Your task to perform on an android device: open app "Spotify" (install if not already installed) Image 0: 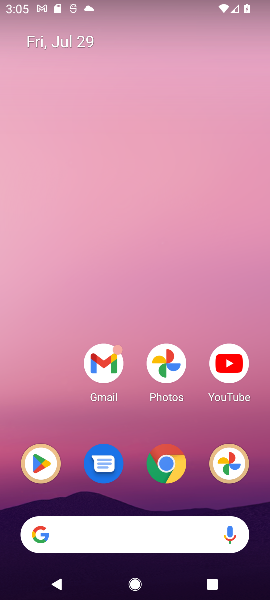
Step 0: drag from (94, 538) to (126, 83)
Your task to perform on an android device: open app "Spotify" (install if not already installed) Image 1: 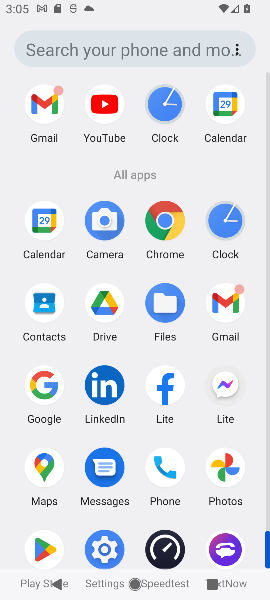
Step 1: click (43, 552)
Your task to perform on an android device: open app "Spotify" (install if not already installed) Image 2: 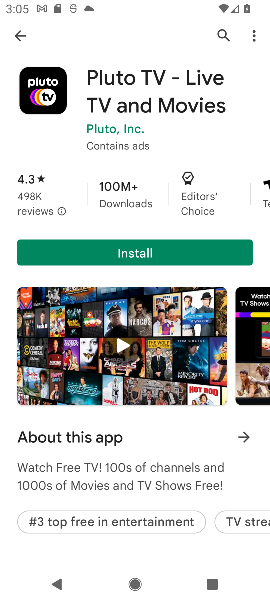
Step 2: click (219, 29)
Your task to perform on an android device: open app "Spotify" (install if not already installed) Image 3: 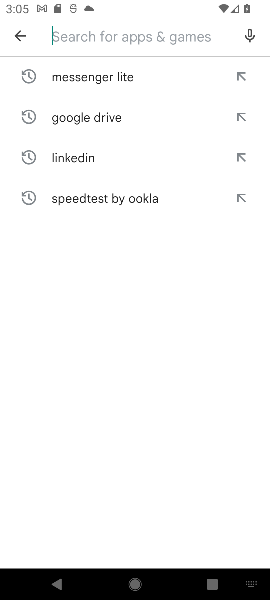
Step 3: type "Spotify"
Your task to perform on an android device: open app "Spotify" (install if not already installed) Image 4: 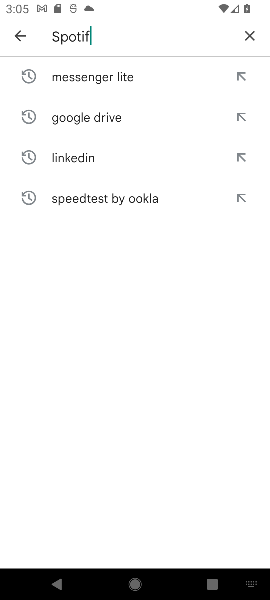
Step 4: type ""
Your task to perform on an android device: open app "Spotify" (install if not already installed) Image 5: 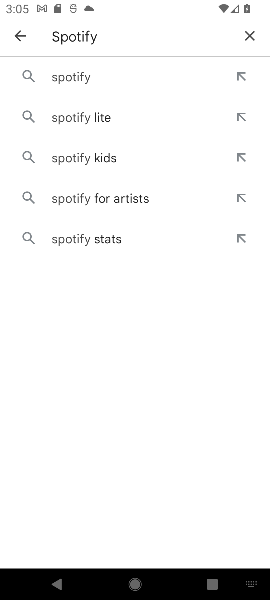
Step 5: click (68, 74)
Your task to perform on an android device: open app "Spotify" (install if not already installed) Image 6: 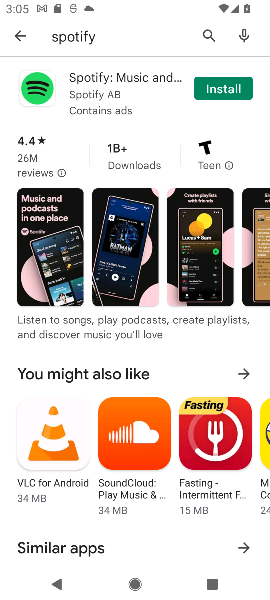
Step 6: click (225, 90)
Your task to perform on an android device: open app "Spotify" (install if not already installed) Image 7: 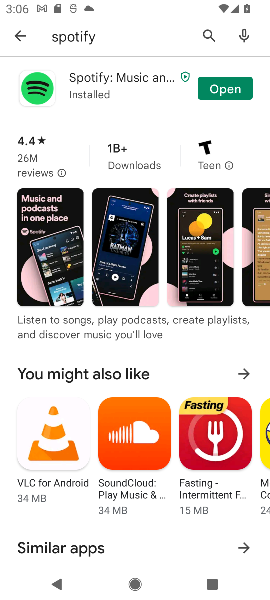
Step 7: click (216, 88)
Your task to perform on an android device: open app "Spotify" (install if not already installed) Image 8: 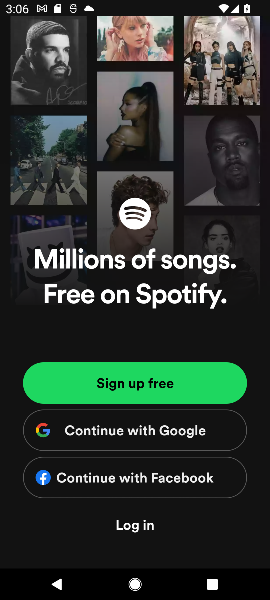
Step 8: task complete